Your task to perform on an android device: What's the weather going to be tomorrow? Image 0: 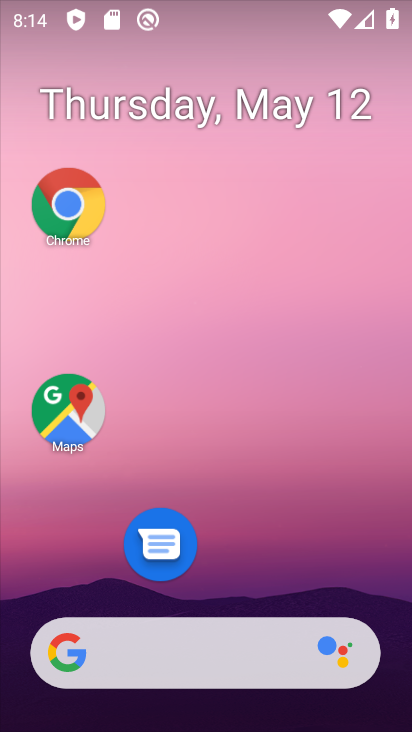
Step 0: click (207, 675)
Your task to perform on an android device: What's the weather going to be tomorrow? Image 1: 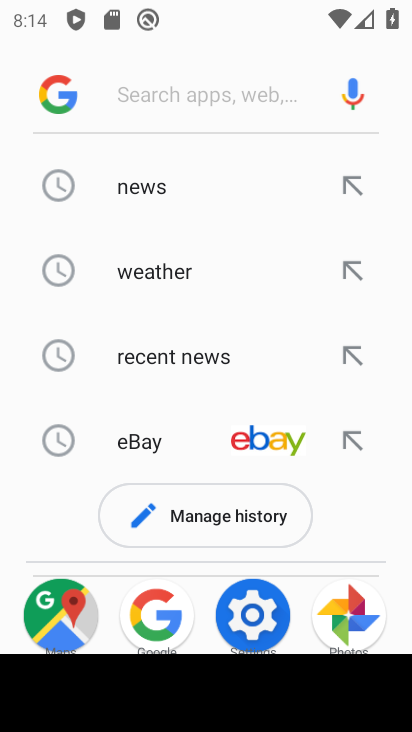
Step 1: click (157, 263)
Your task to perform on an android device: What's the weather going to be tomorrow? Image 2: 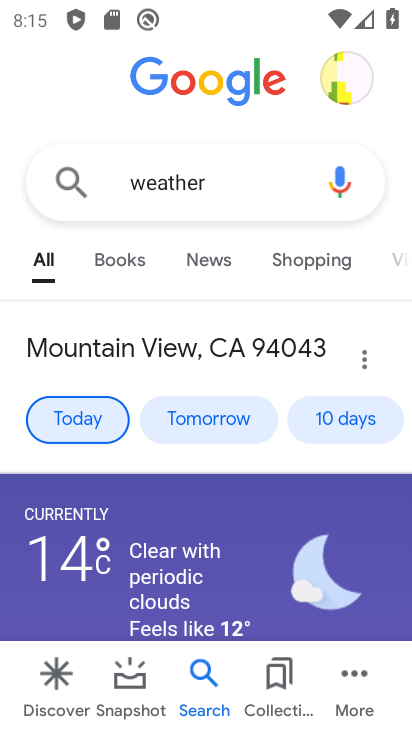
Step 2: click (214, 414)
Your task to perform on an android device: What's the weather going to be tomorrow? Image 3: 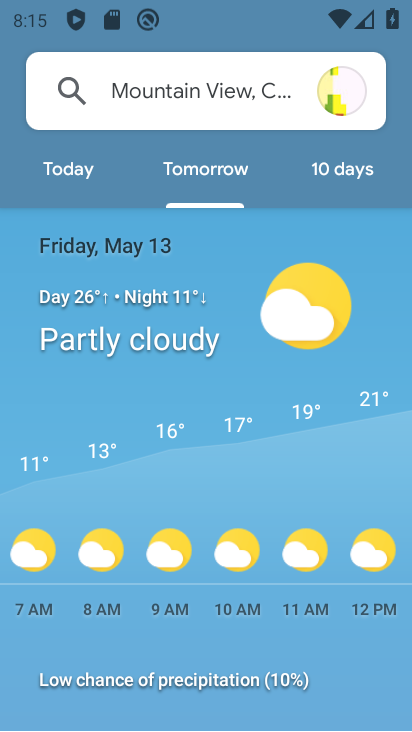
Step 3: task complete